Your task to perform on an android device: turn off airplane mode Image 0: 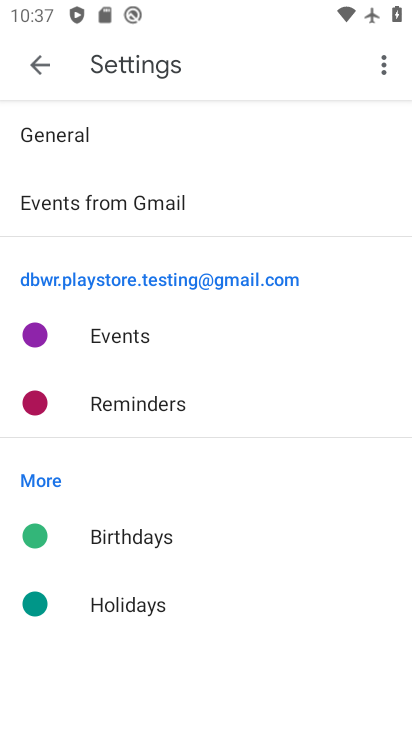
Step 0: press back button
Your task to perform on an android device: turn off airplane mode Image 1: 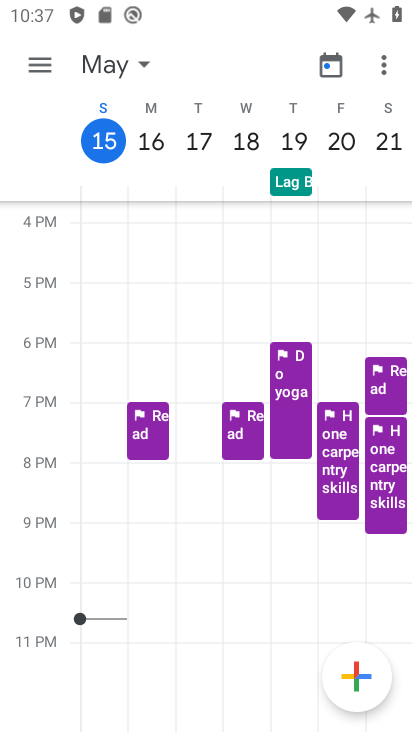
Step 1: press back button
Your task to perform on an android device: turn off airplane mode Image 2: 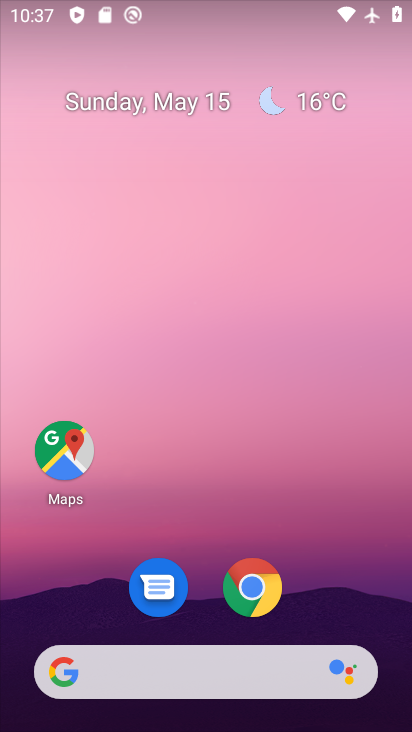
Step 2: drag from (313, 567) to (314, 45)
Your task to perform on an android device: turn off airplane mode Image 3: 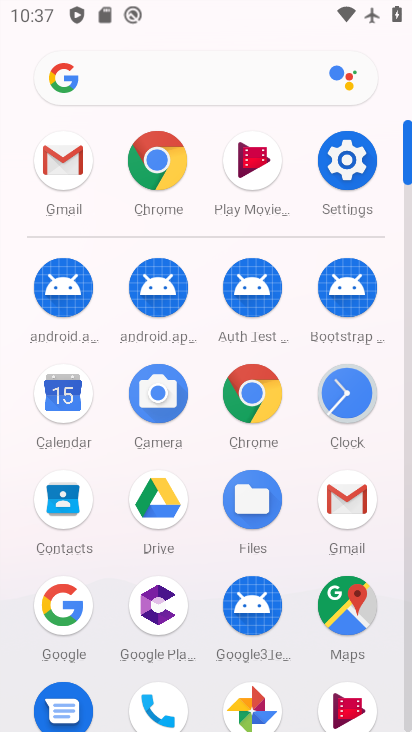
Step 3: click (345, 155)
Your task to perform on an android device: turn off airplane mode Image 4: 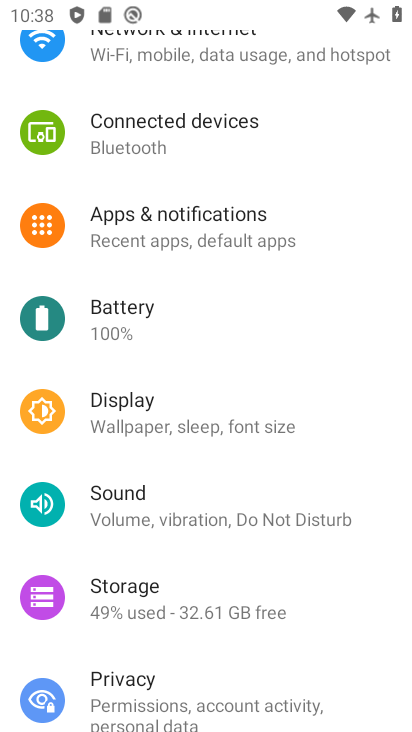
Step 4: drag from (295, 121) to (247, 602)
Your task to perform on an android device: turn off airplane mode Image 5: 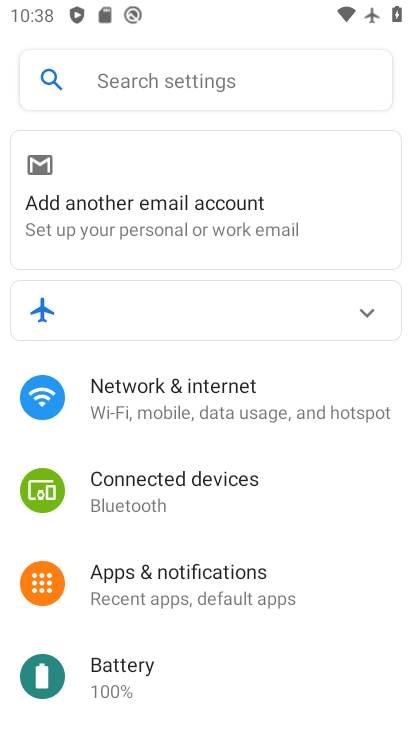
Step 5: click (219, 385)
Your task to perform on an android device: turn off airplane mode Image 6: 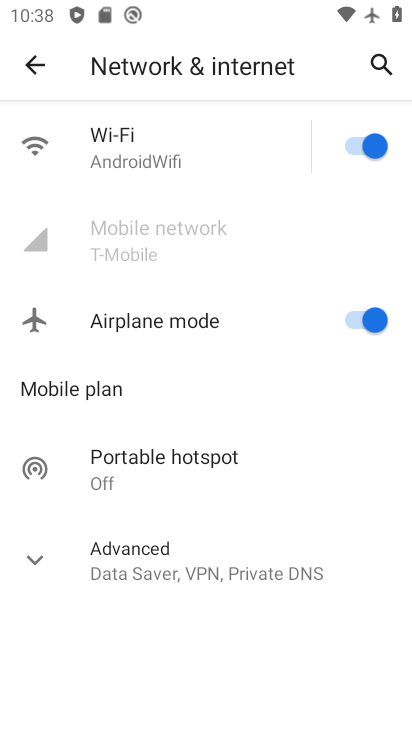
Step 6: click (31, 558)
Your task to perform on an android device: turn off airplane mode Image 7: 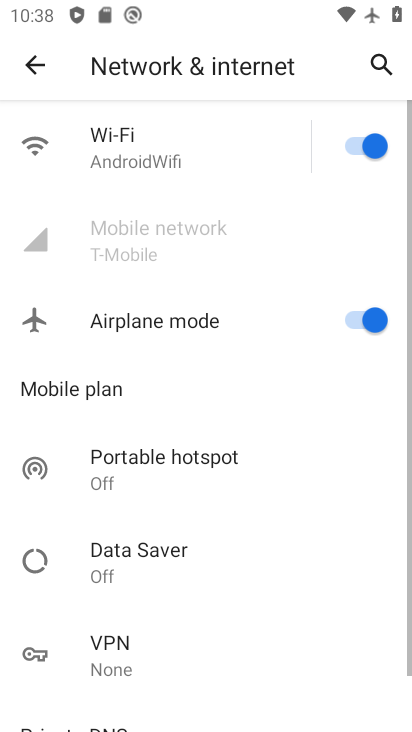
Step 7: drag from (220, 615) to (220, 215)
Your task to perform on an android device: turn off airplane mode Image 8: 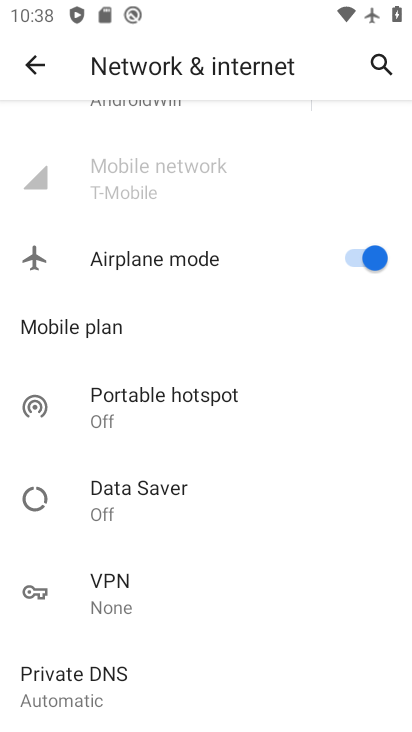
Step 8: click (367, 260)
Your task to perform on an android device: turn off airplane mode Image 9: 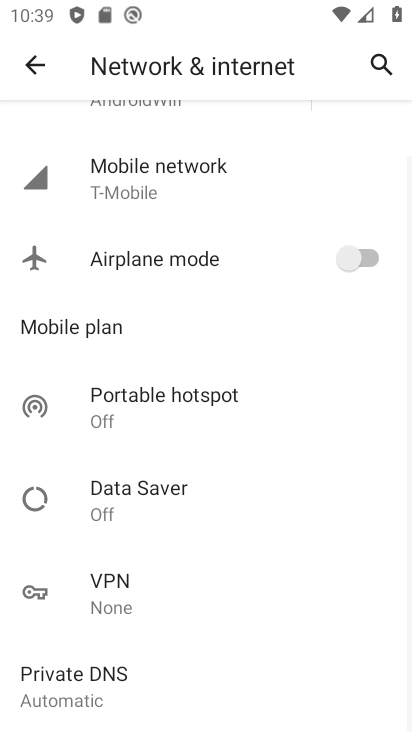
Step 9: task complete